Your task to perform on an android device: choose inbox layout in the gmail app Image 0: 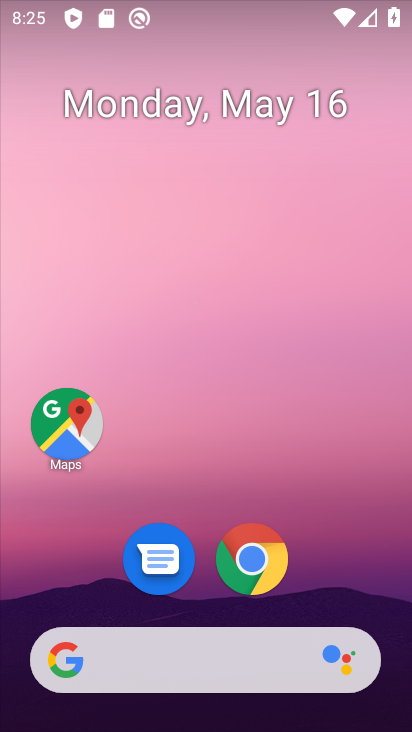
Step 0: drag from (323, 554) to (316, 28)
Your task to perform on an android device: choose inbox layout in the gmail app Image 1: 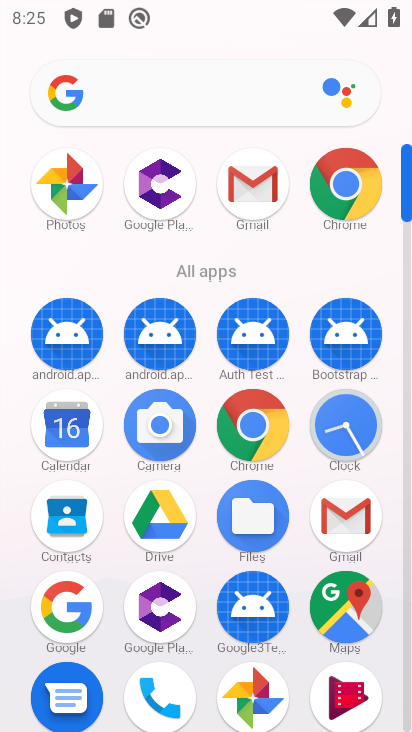
Step 1: click (353, 508)
Your task to perform on an android device: choose inbox layout in the gmail app Image 2: 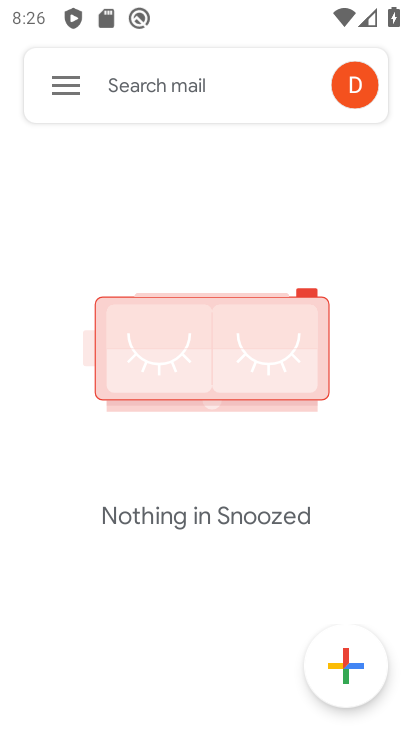
Step 2: click (74, 93)
Your task to perform on an android device: choose inbox layout in the gmail app Image 3: 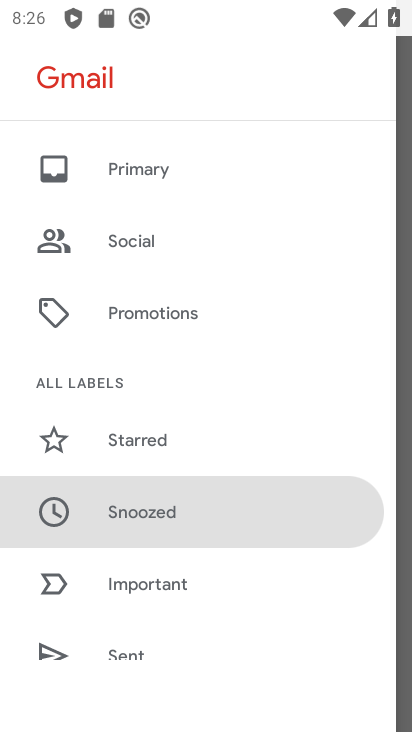
Step 3: drag from (208, 604) to (223, 454)
Your task to perform on an android device: choose inbox layout in the gmail app Image 4: 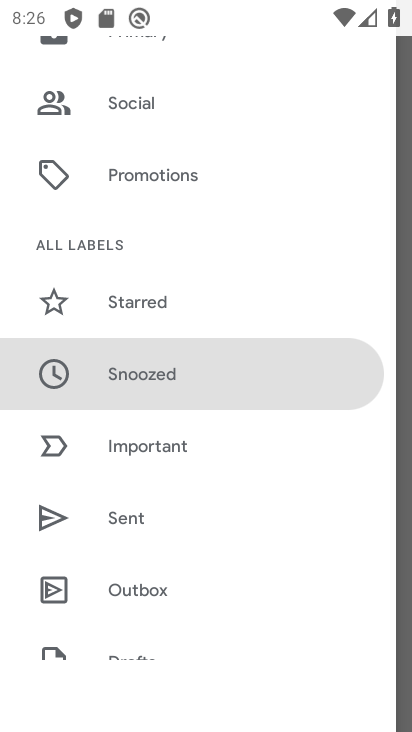
Step 4: drag from (260, 557) to (262, 422)
Your task to perform on an android device: choose inbox layout in the gmail app Image 5: 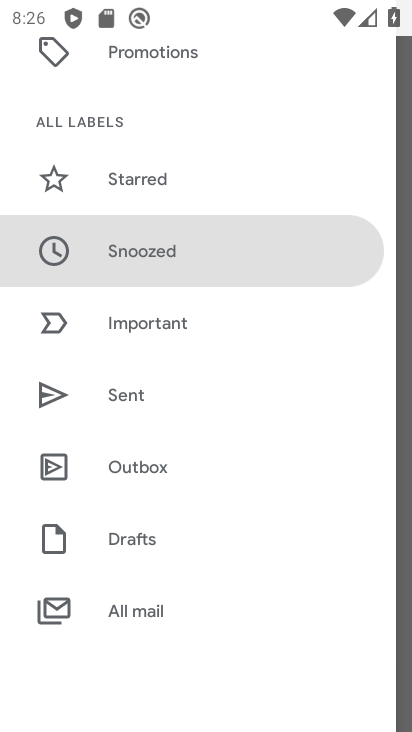
Step 5: drag from (280, 556) to (262, 396)
Your task to perform on an android device: choose inbox layout in the gmail app Image 6: 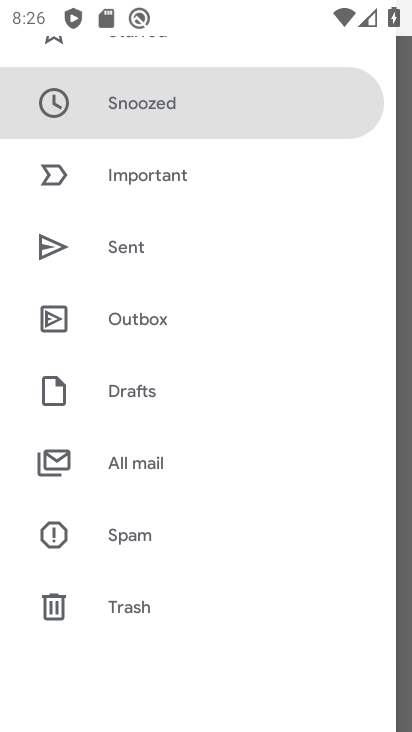
Step 6: drag from (254, 558) to (240, 406)
Your task to perform on an android device: choose inbox layout in the gmail app Image 7: 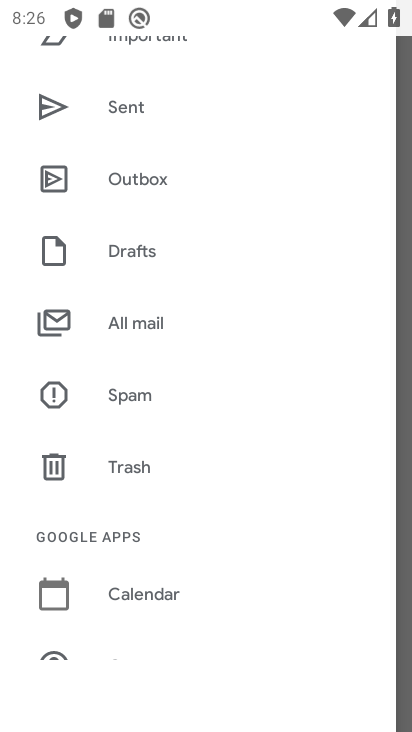
Step 7: drag from (242, 553) to (237, 408)
Your task to perform on an android device: choose inbox layout in the gmail app Image 8: 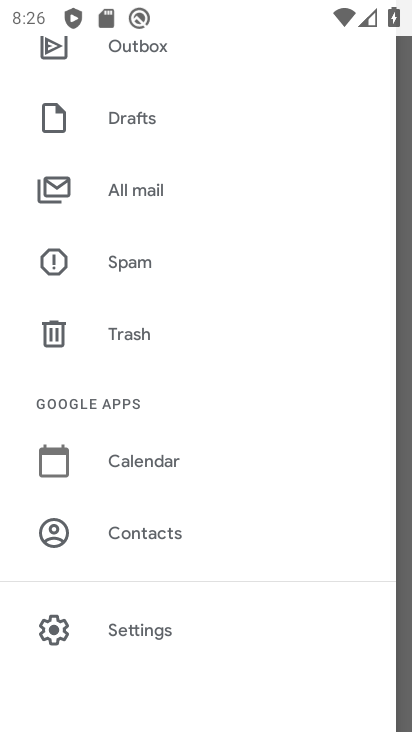
Step 8: click (230, 614)
Your task to perform on an android device: choose inbox layout in the gmail app Image 9: 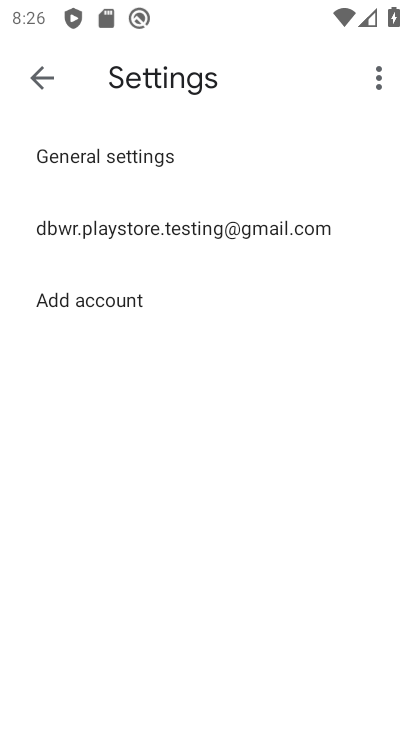
Step 9: click (304, 218)
Your task to perform on an android device: choose inbox layout in the gmail app Image 10: 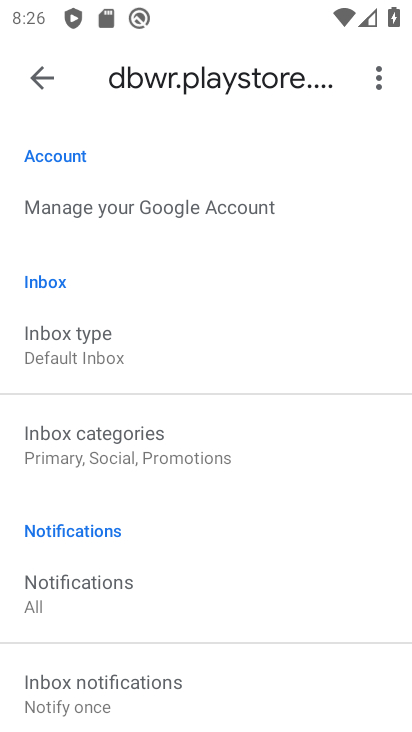
Step 10: drag from (214, 578) to (213, 485)
Your task to perform on an android device: choose inbox layout in the gmail app Image 11: 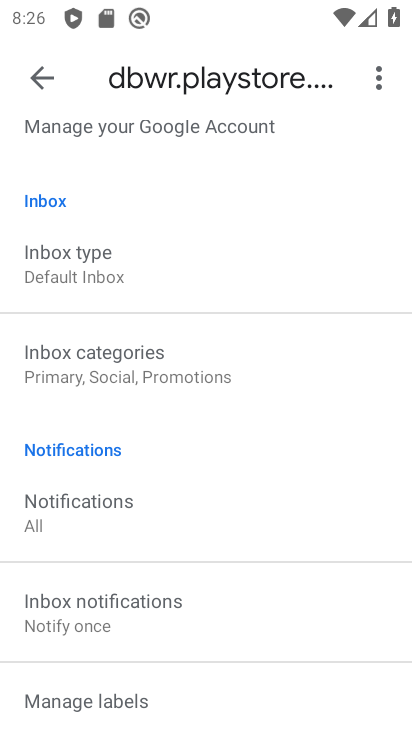
Step 11: click (93, 255)
Your task to perform on an android device: choose inbox layout in the gmail app Image 12: 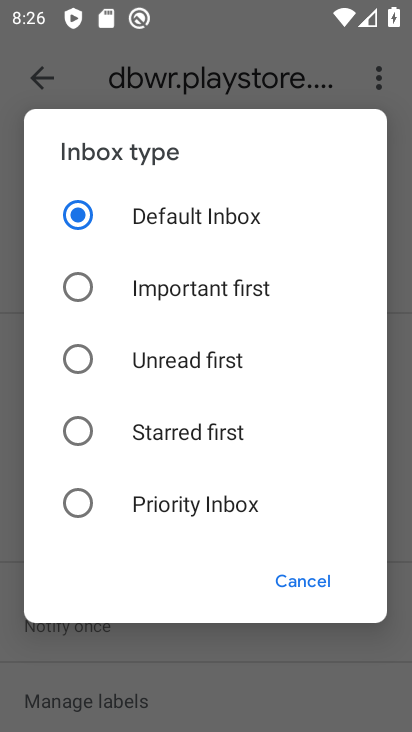
Step 12: click (204, 504)
Your task to perform on an android device: choose inbox layout in the gmail app Image 13: 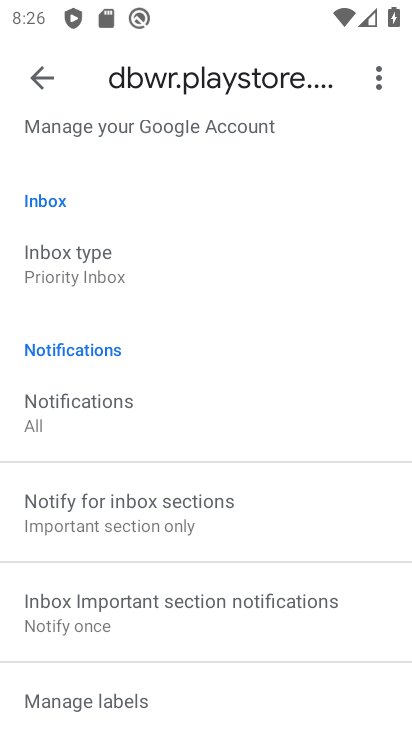
Step 13: task complete